Your task to perform on an android device: Clear the cart on ebay.com. Image 0: 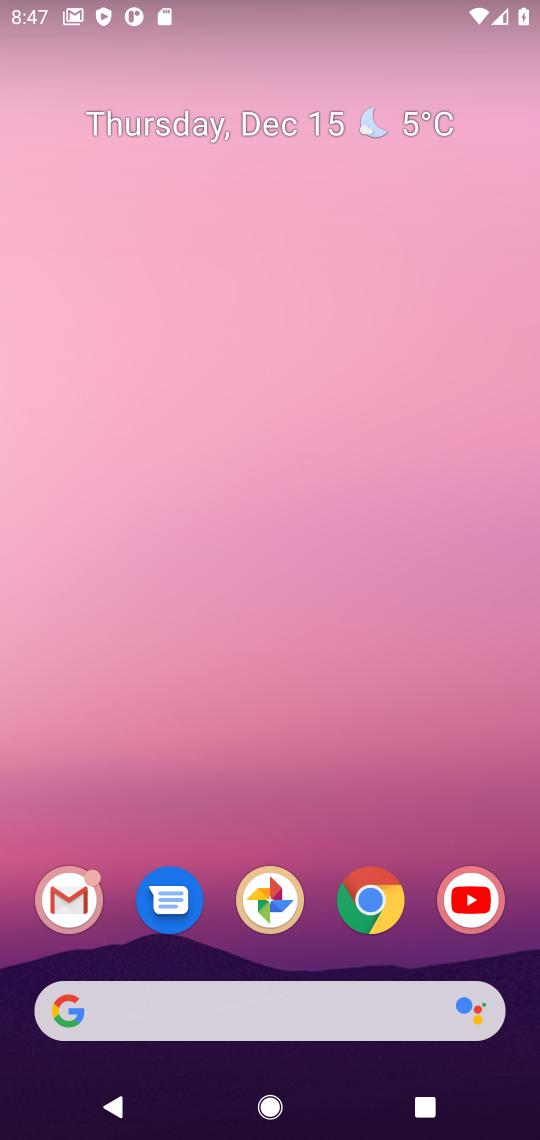
Step 0: click (357, 915)
Your task to perform on an android device: Clear the cart on ebay.com. Image 1: 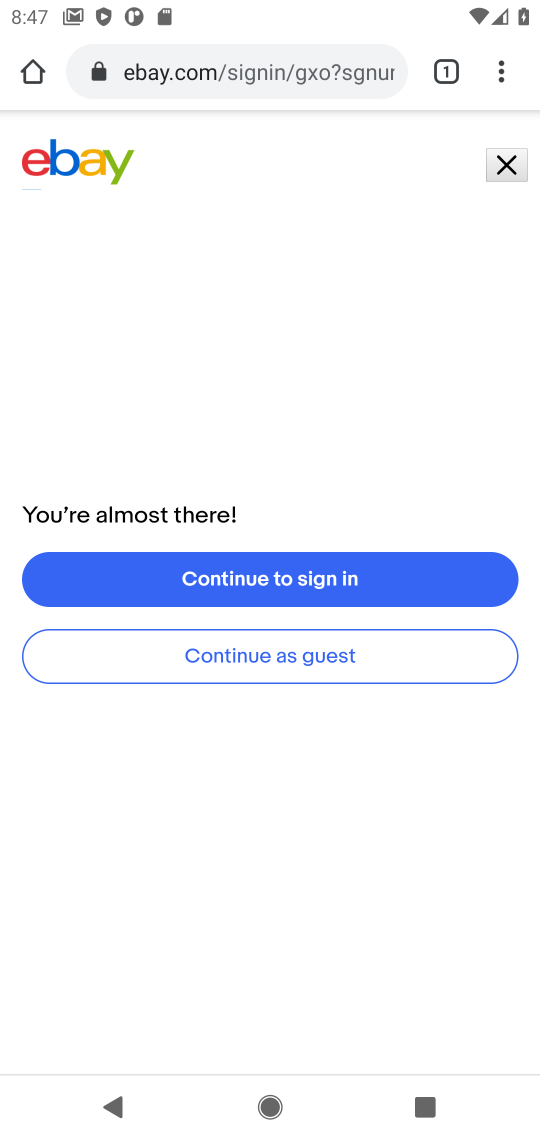
Step 1: click (200, 77)
Your task to perform on an android device: Clear the cart on ebay.com. Image 2: 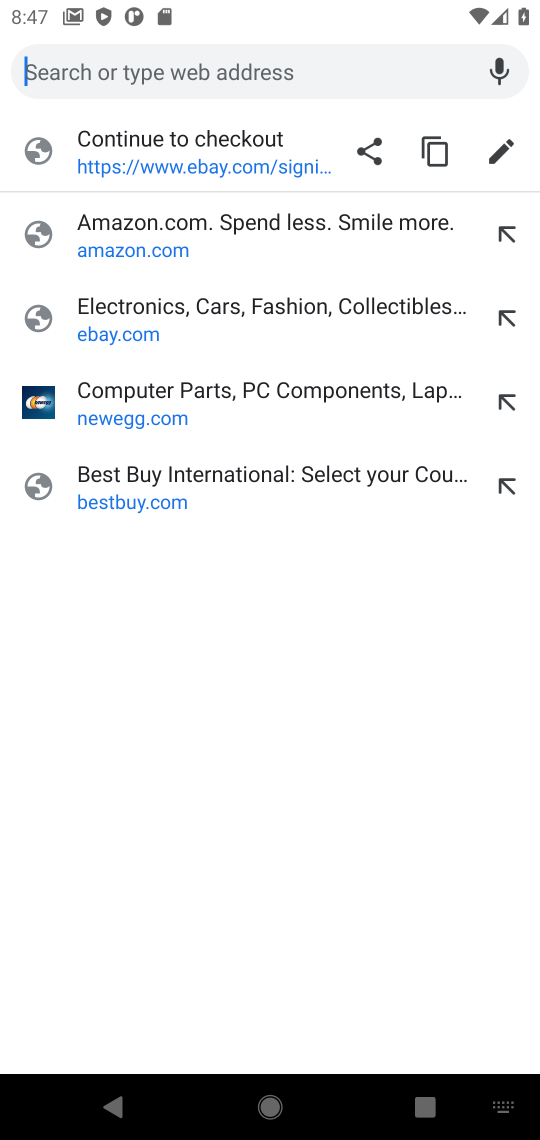
Step 2: type "ebay.com"
Your task to perform on an android device: Clear the cart on ebay.com. Image 3: 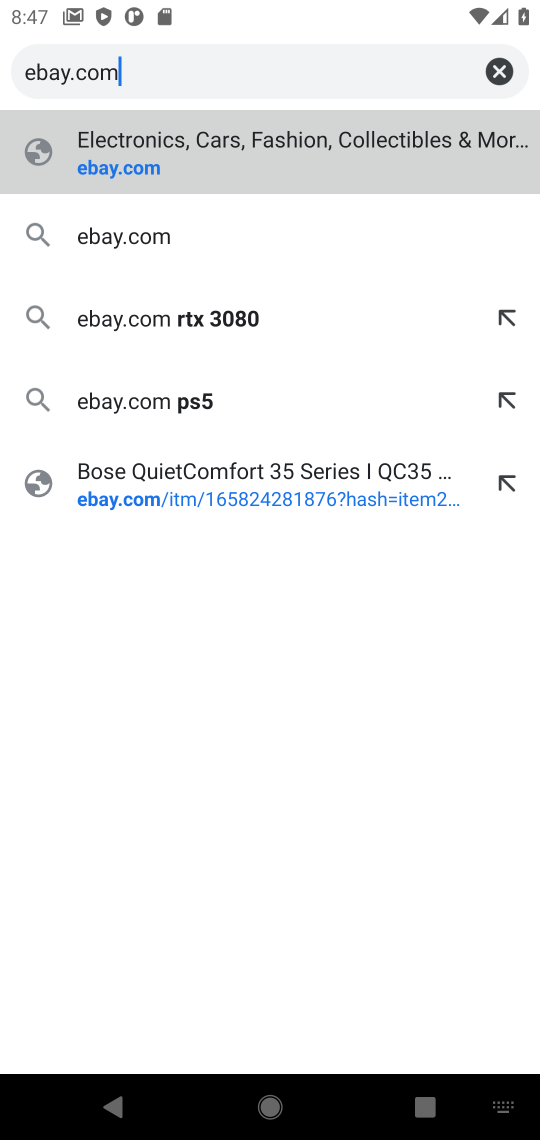
Step 3: click (149, 163)
Your task to perform on an android device: Clear the cart on ebay.com. Image 4: 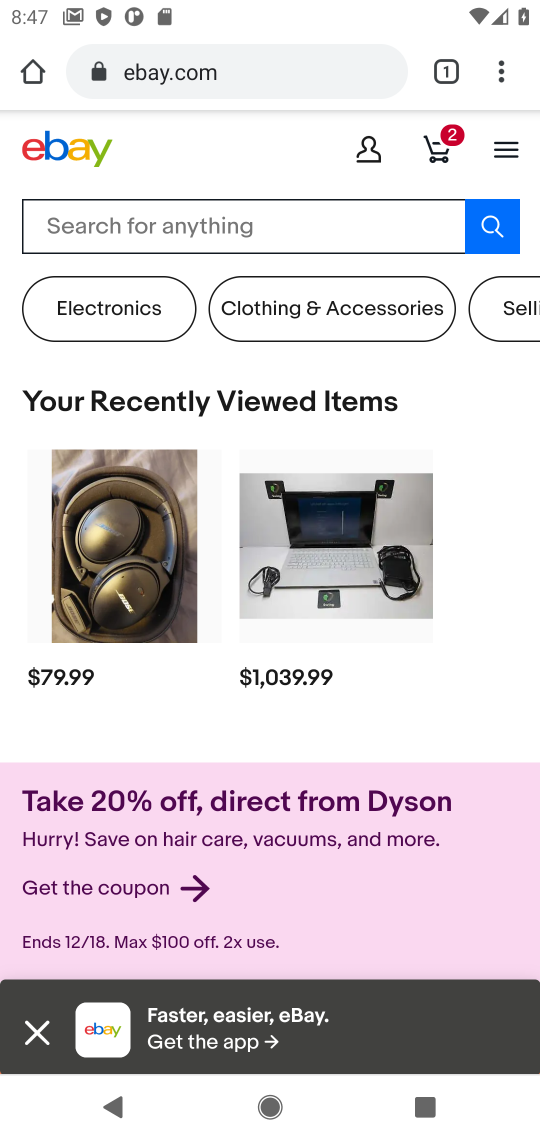
Step 4: click (443, 146)
Your task to perform on an android device: Clear the cart on ebay.com. Image 5: 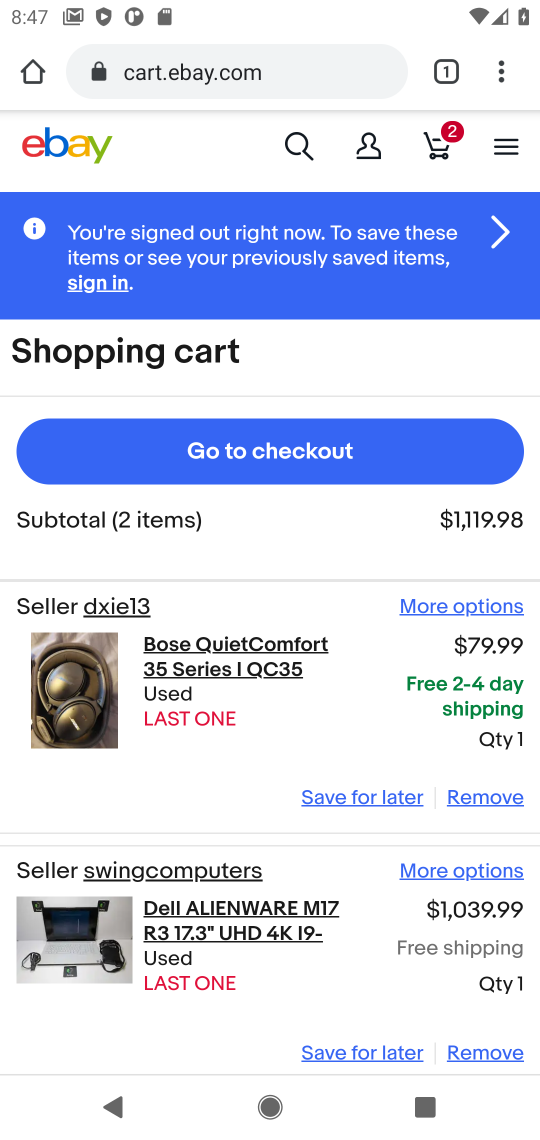
Step 5: click (486, 801)
Your task to perform on an android device: Clear the cart on ebay.com. Image 6: 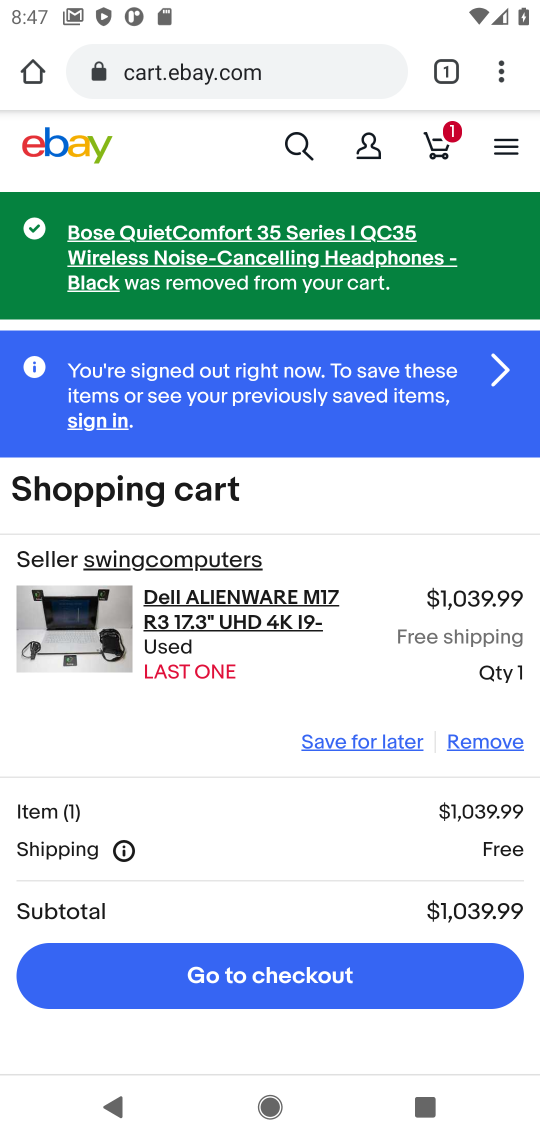
Step 6: click (480, 751)
Your task to perform on an android device: Clear the cart on ebay.com. Image 7: 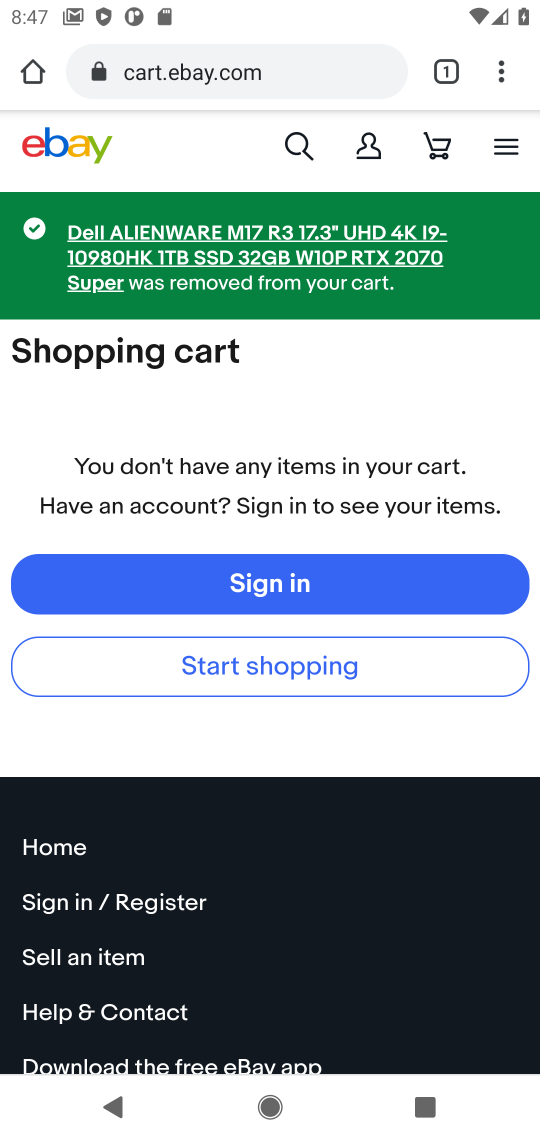
Step 7: task complete